Your task to perform on an android device: find snoozed emails in the gmail app Image 0: 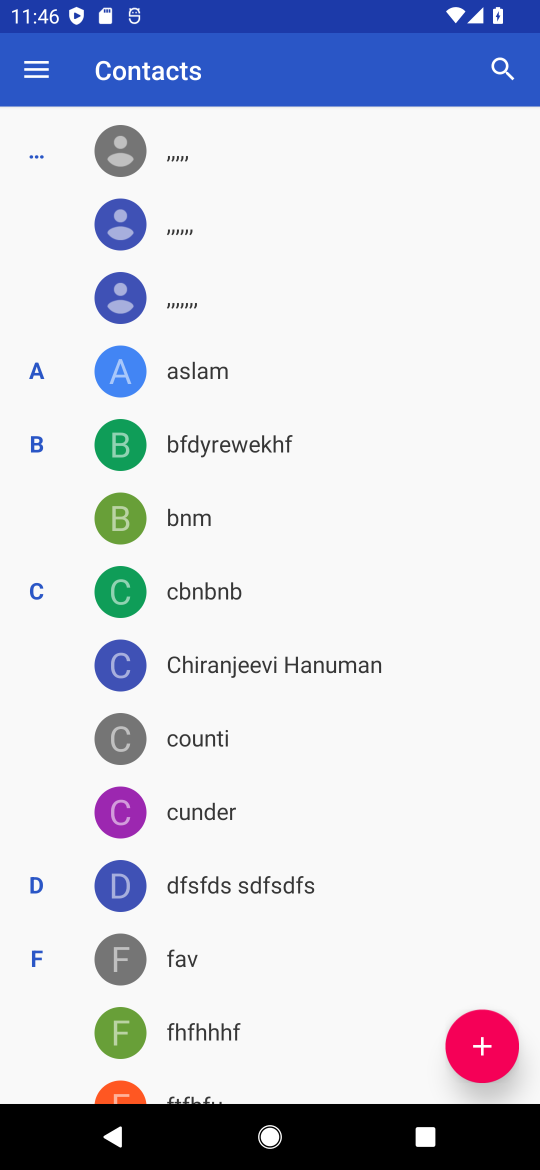
Step 0: press home button
Your task to perform on an android device: find snoozed emails in the gmail app Image 1: 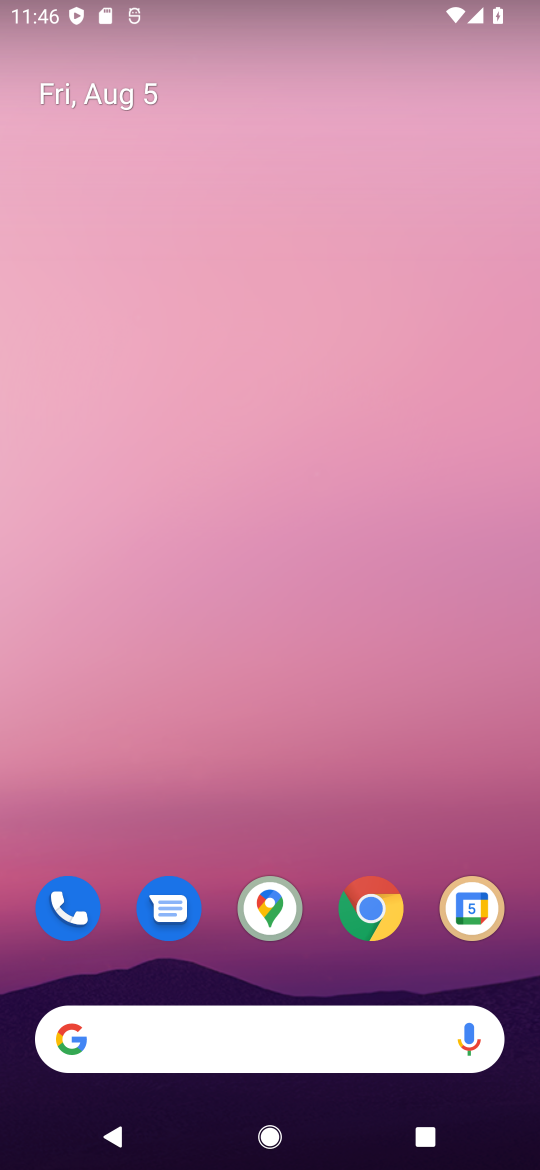
Step 1: drag from (329, 841) to (388, 109)
Your task to perform on an android device: find snoozed emails in the gmail app Image 2: 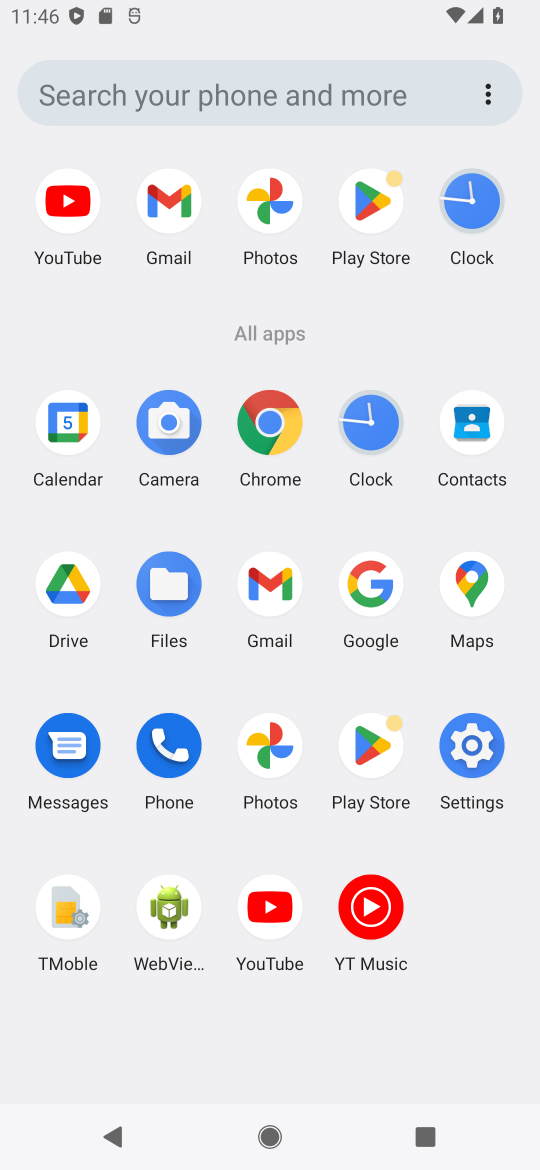
Step 2: click (276, 578)
Your task to perform on an android device: find snoozed emails in the gmail app Image 3: 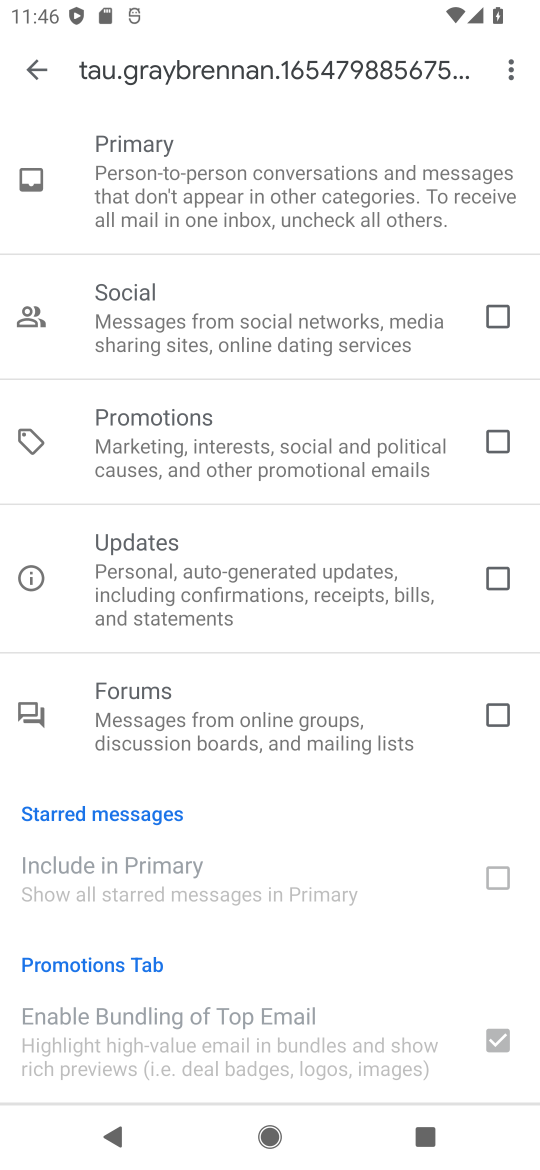
Step 3: click (53, 70)
Your task to perform on an android device: find snoozed emails in the gmail app Image 4: 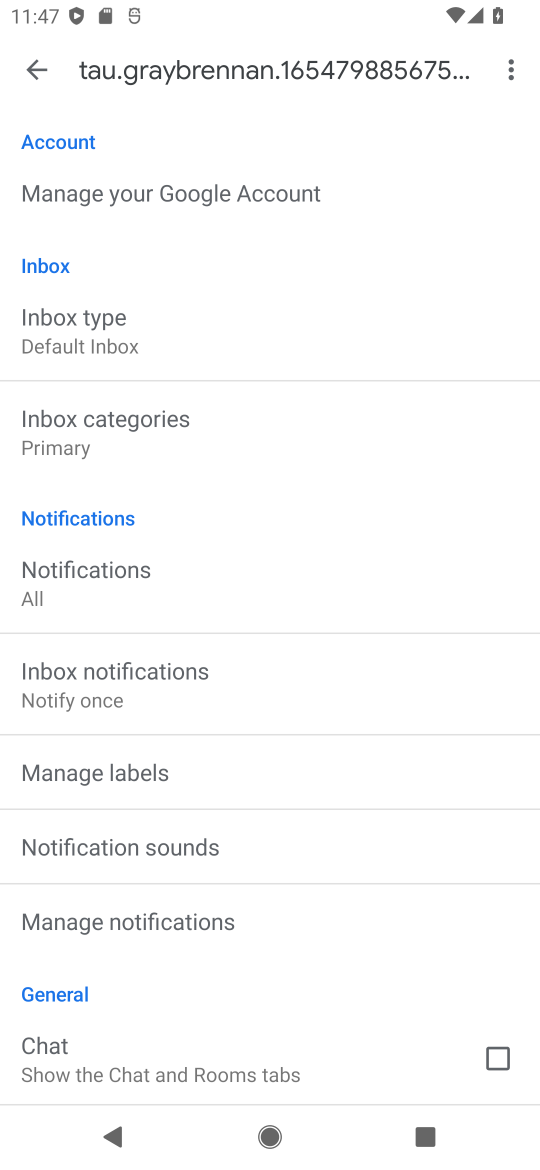
Step 4: drag from (211, 282) to (262, 929)
Your task to perform on an android device: find snoozed emails in the gmail app Image 5: 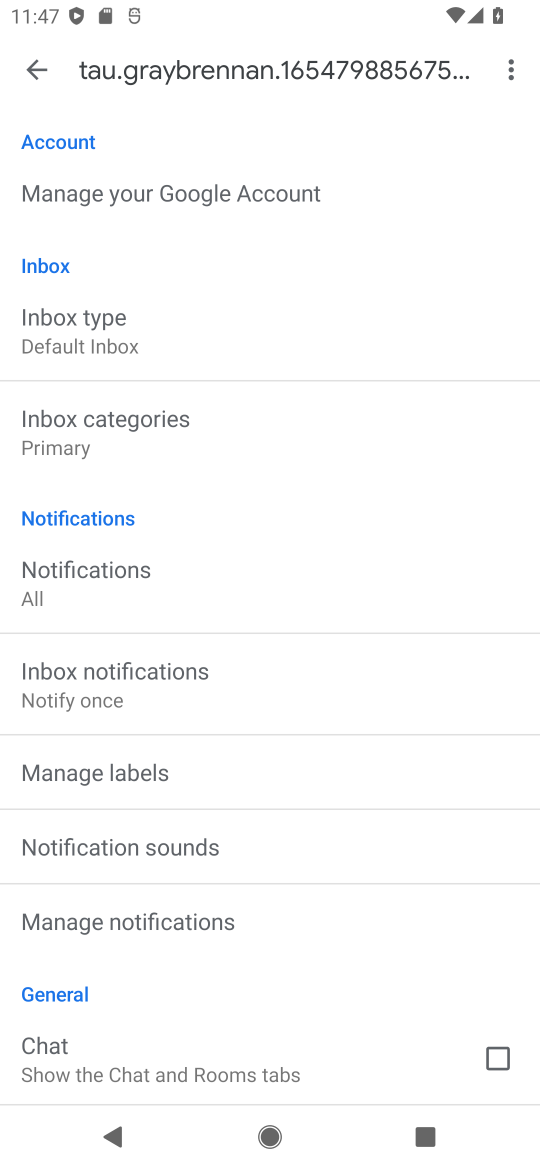
Step 5: click (33, 52)
Your task to perform on an android device: find snoozed emails in the gmail app Image 6: 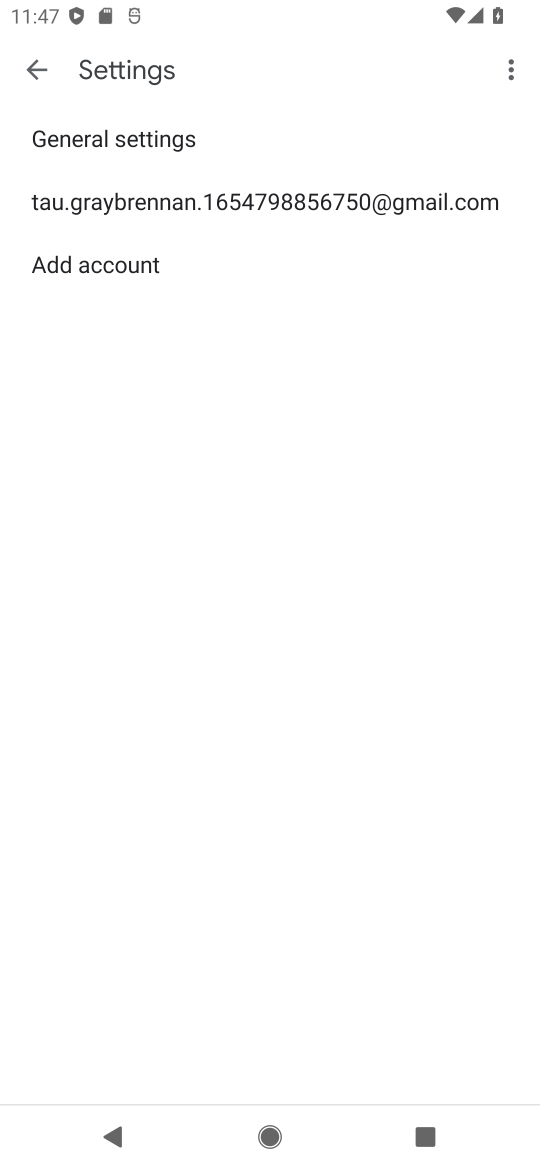
Step 6: click (40, 63)
Your task to perform on an android device: find snoozed emails in the gmail app Image 7: 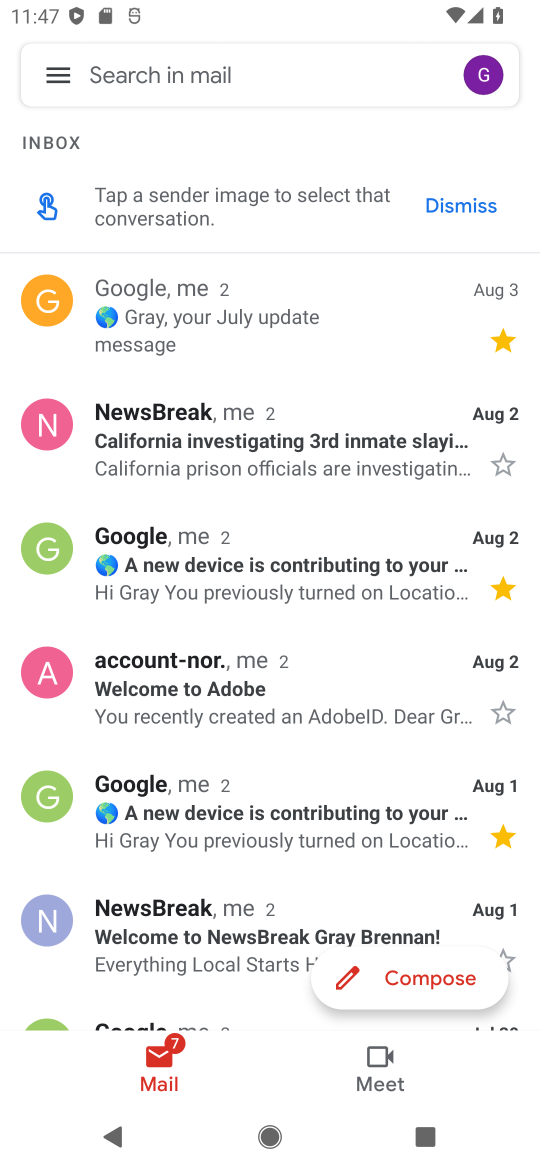
Step 7: click (40, 63)
Your task to perform on an android device: find snoozed emails in the gmail app Image 8: 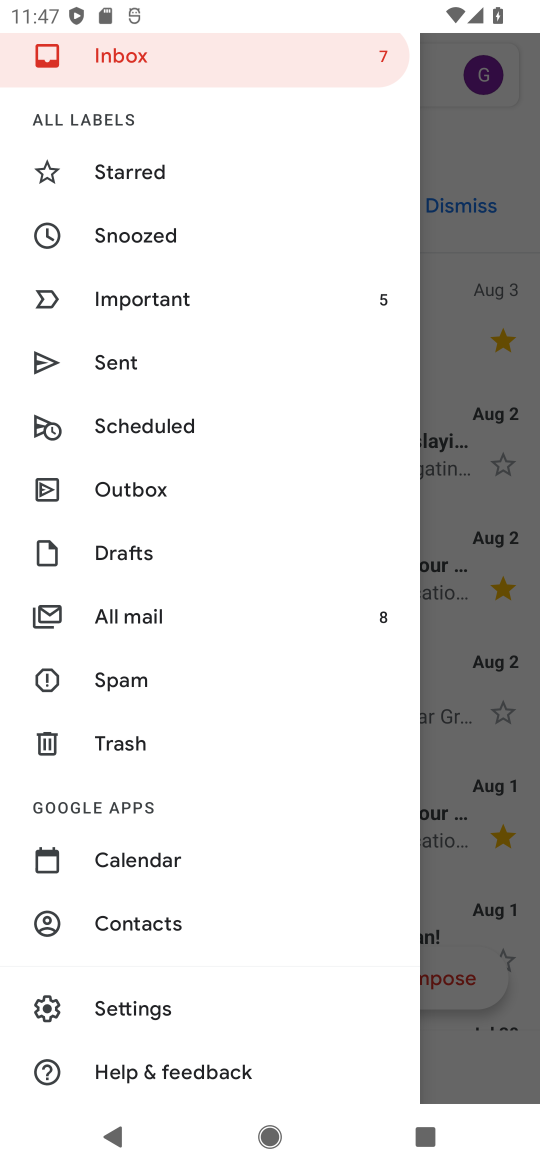
Step 8: click (172, 232)
Your task to perform on an android device: find snoozed emails in the gmail app Image 9: 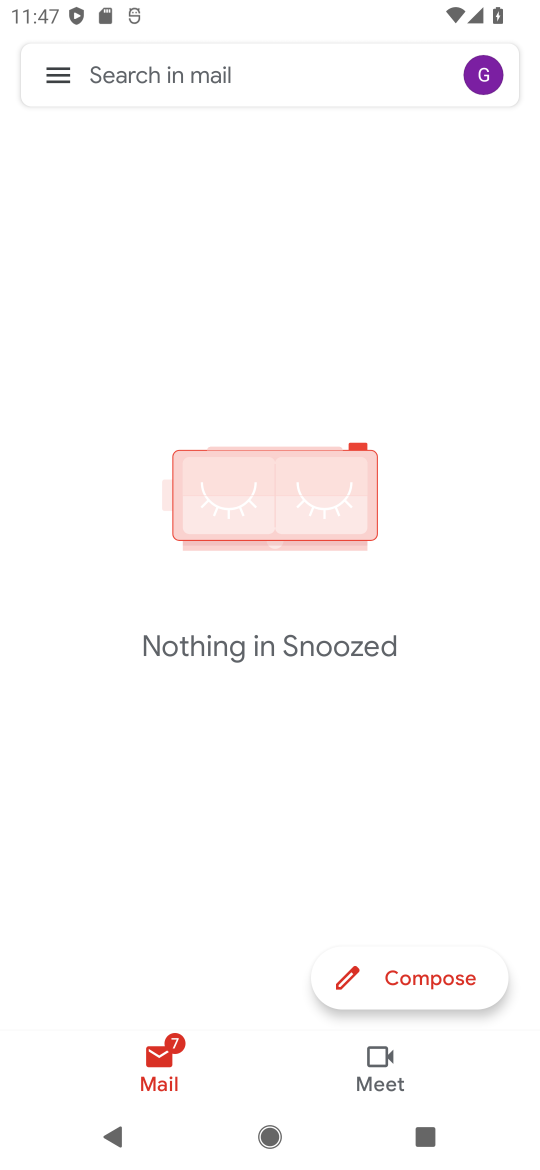
Step 9: task complete